Your task to perform on an android device: set the timer Image 0: 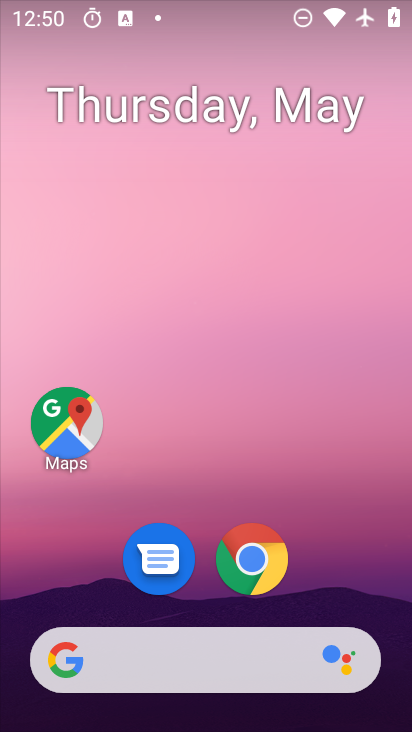
Step 0: drag from (231, 596) to (221, 217)
Your task to perform on an android device: set the timer Image 1: 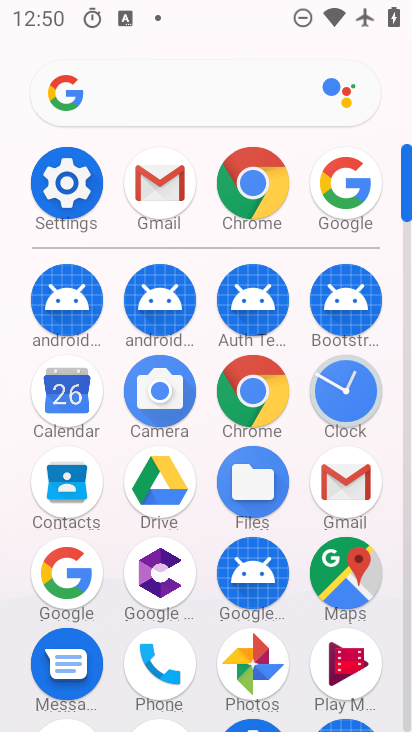
Step 1: click (358, 394)
Your task to perform on an android device: set the timer Image 2: 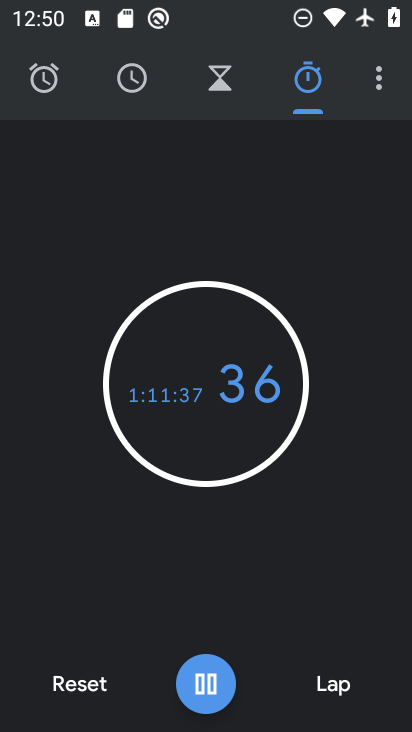
Step 2: click (230, 86)
Your task to perform on an android device: set the timer Image 3: 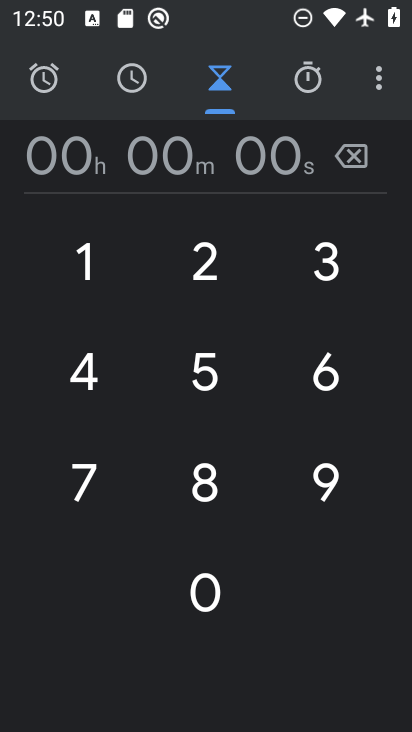
Step 3: click (210, 263)
Your task to perform on an android device: set the timer Image 4: 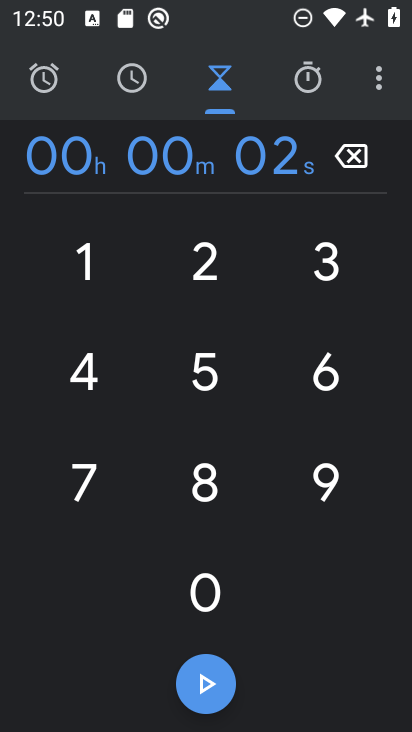
Step 4: click (206, 702)
Your task to perform on an android device: set the timer Image 5: 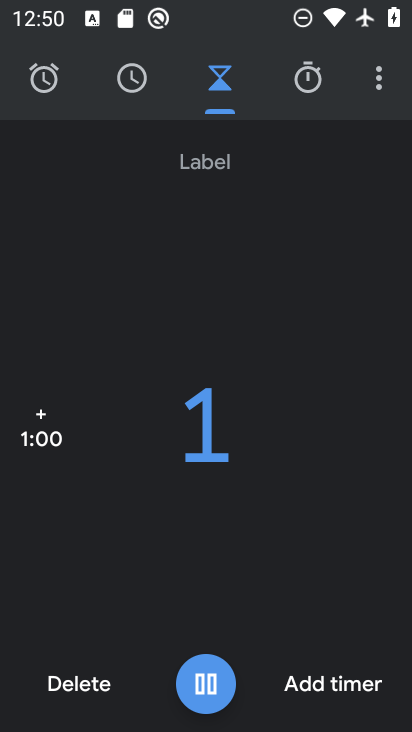
Step 5: task complete